Your task to perform on an android device: Open notification settings Image 0: 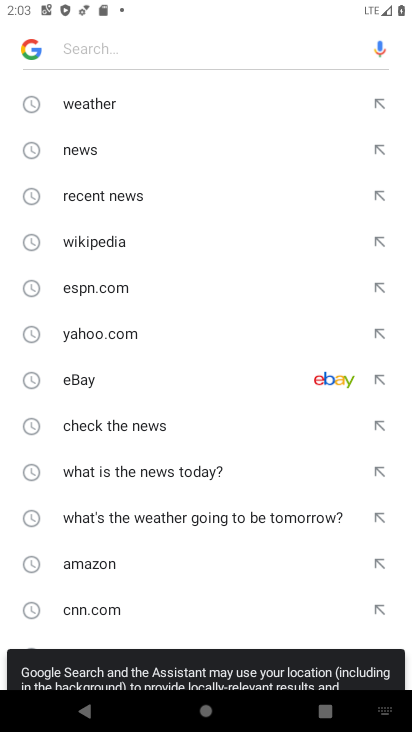
Step 0: press back button
Your task to perform on an android device: Open notification settings Image 1: 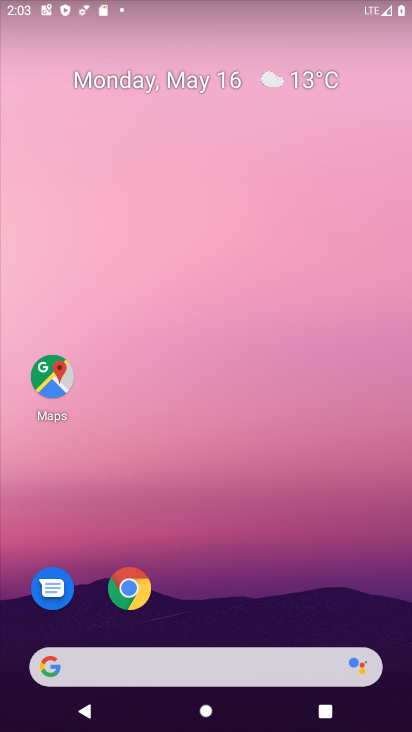
Step 1: drag from (213, 475) to (363, 108)
Your task to perform on an android device: Open notification settings Image 2: 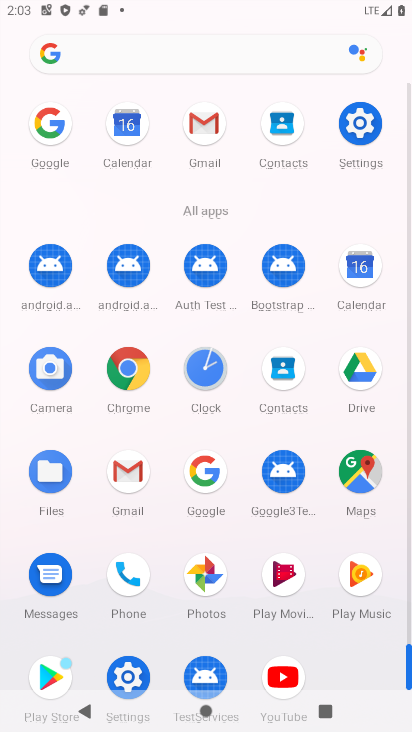
Step 2: drag from (198, 596) to (232, 435)
Your task to perform on an android device: Open notification settings Image 3: 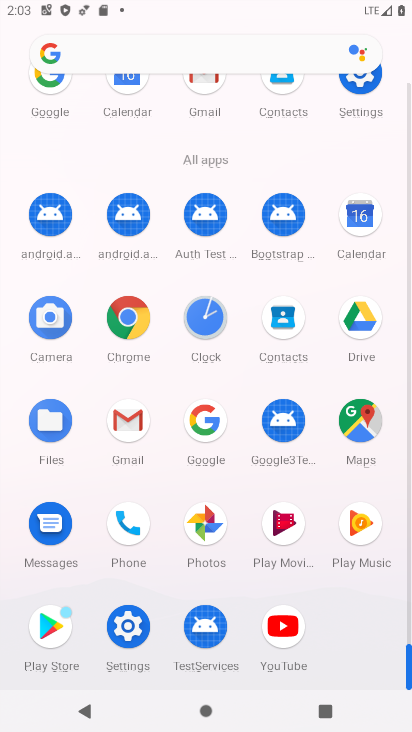
Step 3: click (134, 632)
Your task to perform on an android device: Open notification settings Image 4: 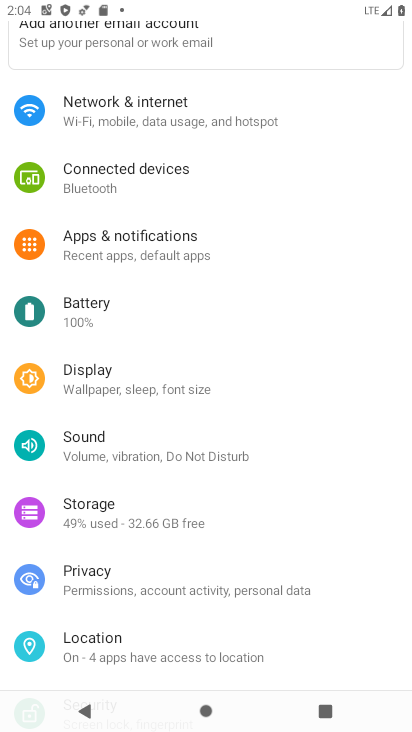
Step 4: click (192, 255)
Your task to perform on an android device: Open notification settings Image 5: 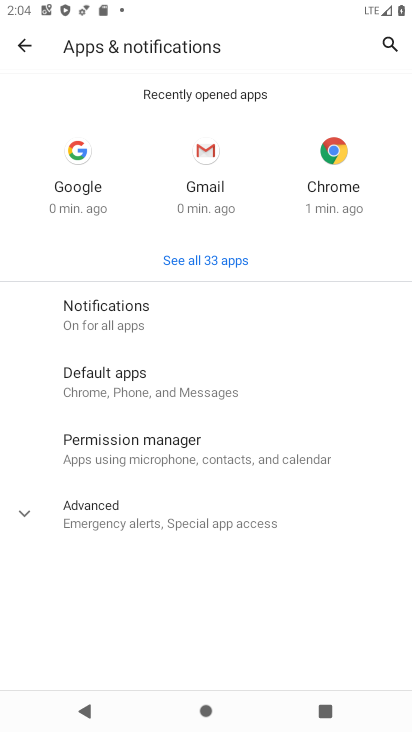
Step 5: click (196, 323)
Your task to perform on an android device: Open notification settings Image 6: 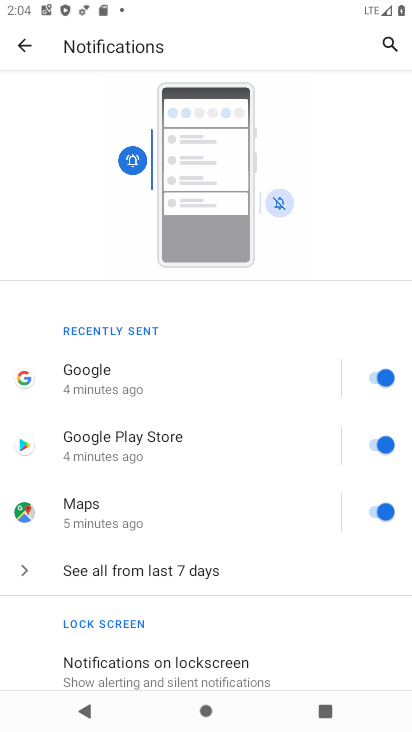
Step 6: task complete